Your task to perform on an android device: Open the calendar app, open the side menu, and click the "Day" option Image 0: 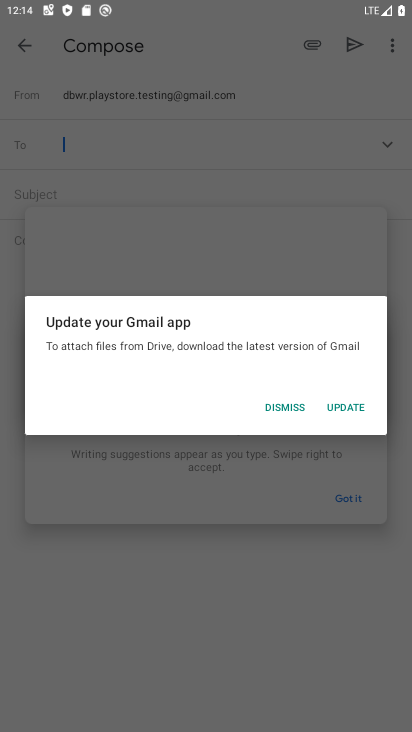
Step 0: press home button
Your task to perform on an android device: Open the calendar app, open the side menu, and click the "Day" option Image 1: 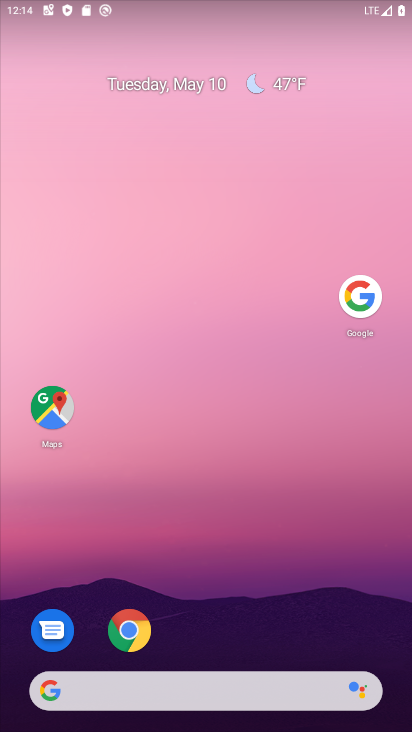
Step 1: drag from (137, 701) to (233, 161)
Your task to perform on an android device: Open the calendar app, open the side menu, and click the "Day" option Image 2: 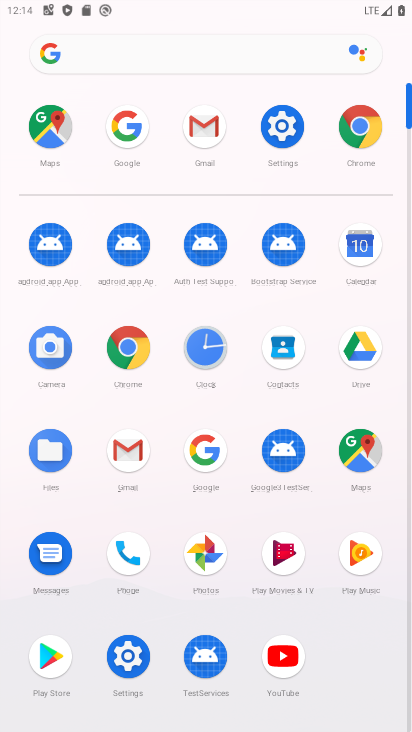
Step 2: click (357, 253)
Your task to perform on an android device: Open the calendar app, open the side menu, and click the "Day" option Image 3: 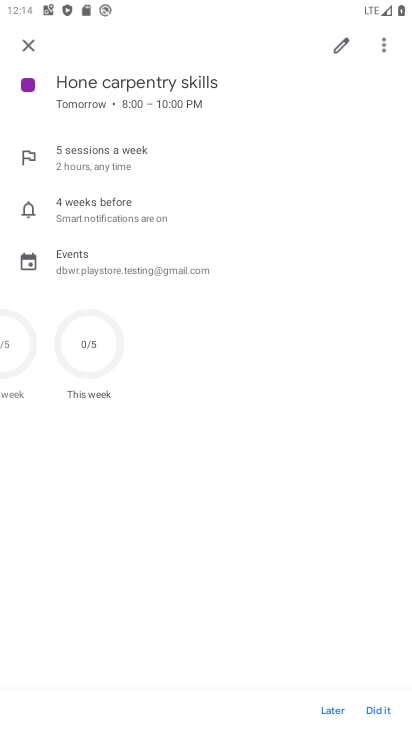
Step 3: click (26, 49)
Your task to perform on an android device: Open the calendar app, open the side menu, and click the "Day" option Image 4: 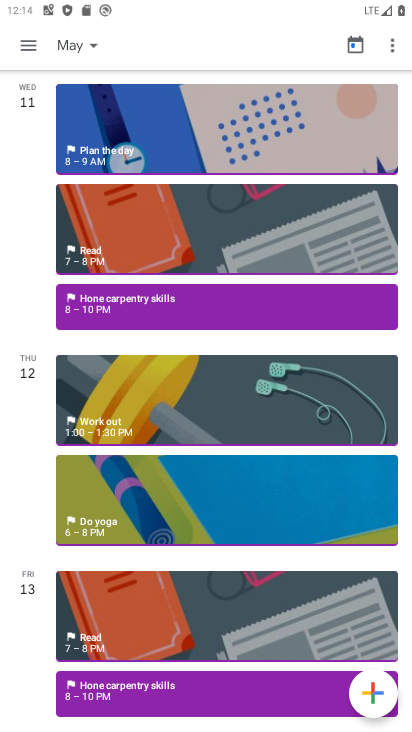
Step 4: click (26, 49)
Your task to perform on an android device: Open the calendar app, open the side menu, and click the "Day" option Image 5: 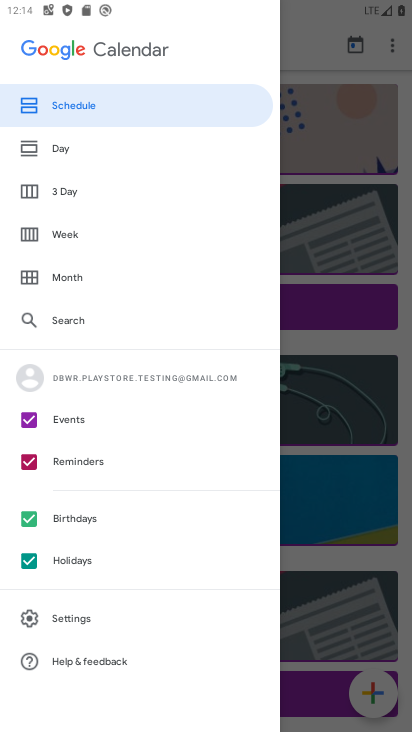
Step 5: click (54, 142)
Your task to perform on an android device: Open the calendar app, open the side menu, and click the "Day" option Image 6: 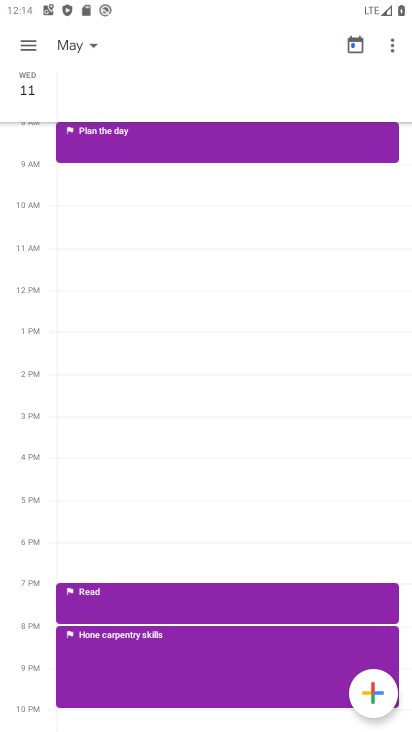
Step 6: task complete